Your task to perform on an android device: turn on airplane mode Image 0: 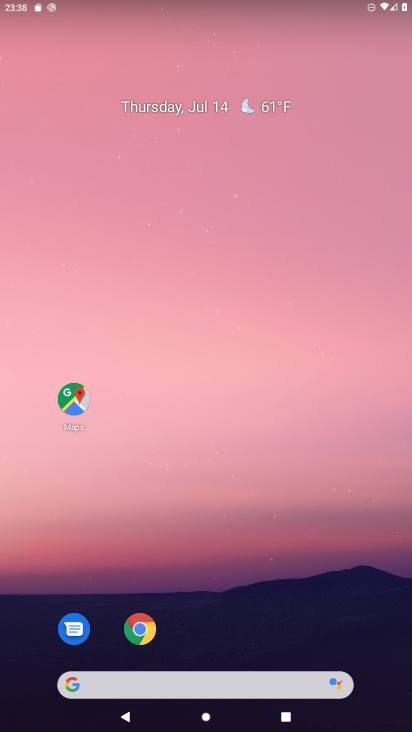
Step 0: drag from (328, 2) to (340, 570)
Your task to perform on an android device: turn on airplane mode Image 1: 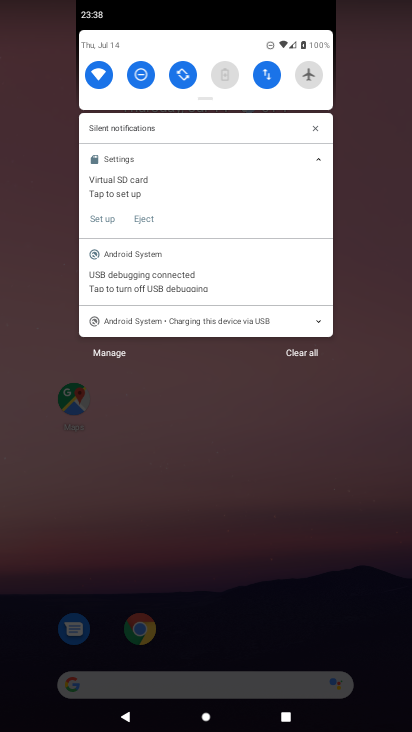
Step 1: click (304, 81)
Your task to perform on an android device: turn on airplane mode Image 2: 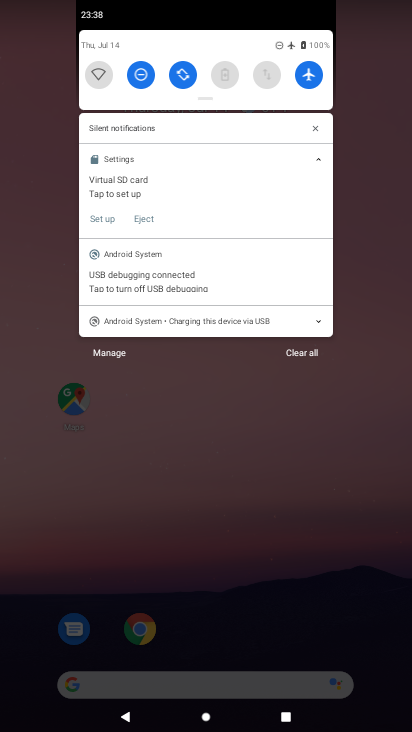
Step 2: task complete